Your task to perform on an android device: toggle airplane mode Image 0: 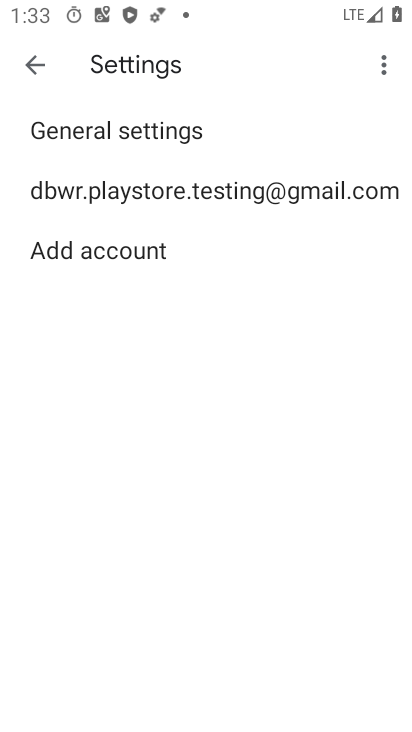
Step 0: press home button
Your task to perform on an android device: toggle airplane mode Image 1: 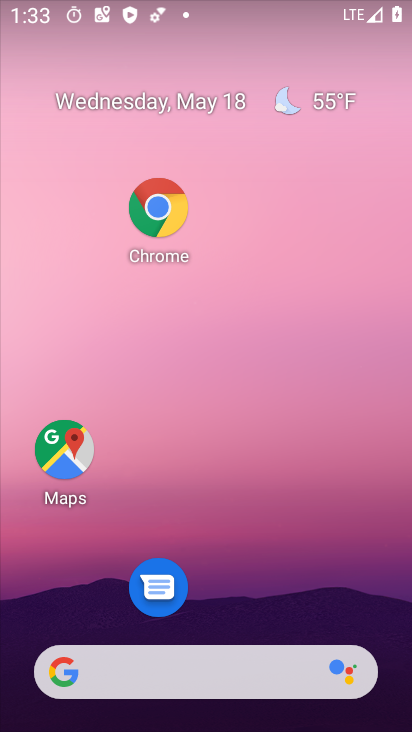
Step 1: drag from (268, 614) to (214, 174)
Your task to perform on an android device: toggle airplane mode Image 2: 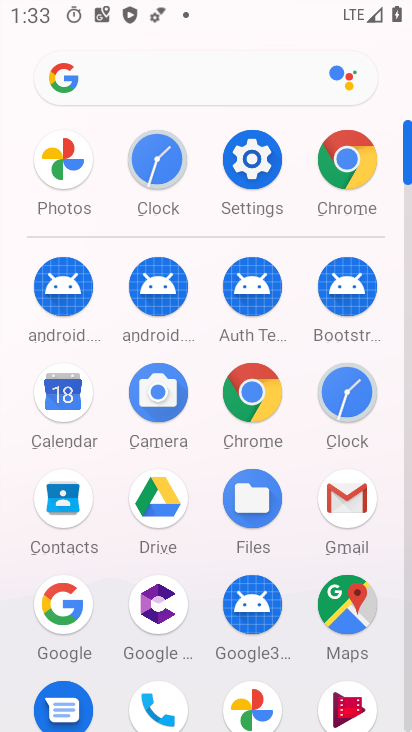
Step 2: press home button
Your task to perform on an android device: toggle airplane mode Image 3: 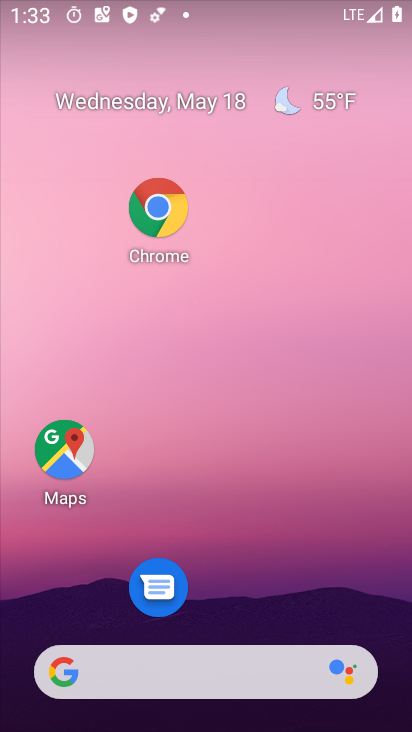
Step 3: drag from (243, 592) to (268, 100)
Your task to perform on an android device: toggle airplane mode Image 4: 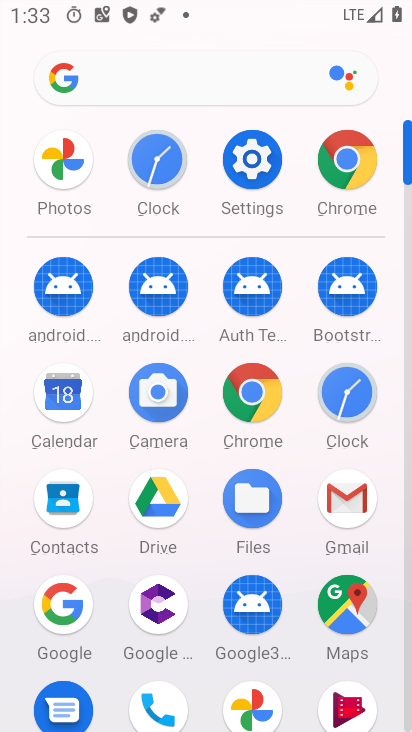
Step 4: click (248, 172)
Your task to perform on an android device: toggle airplane mode Image 5: 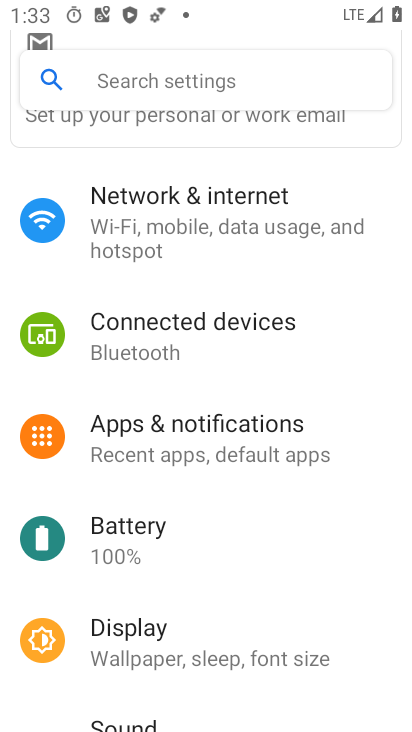
Step 5: click (249, 217)
Your task to perform on an android device: toggle airplane mode Image 6: 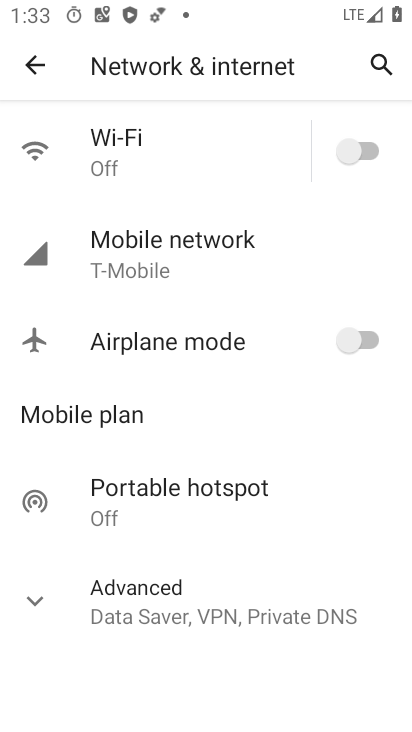
Step 6: click (373, 344)
Your task to perform on an android device: toggle airplane mode Image 7: 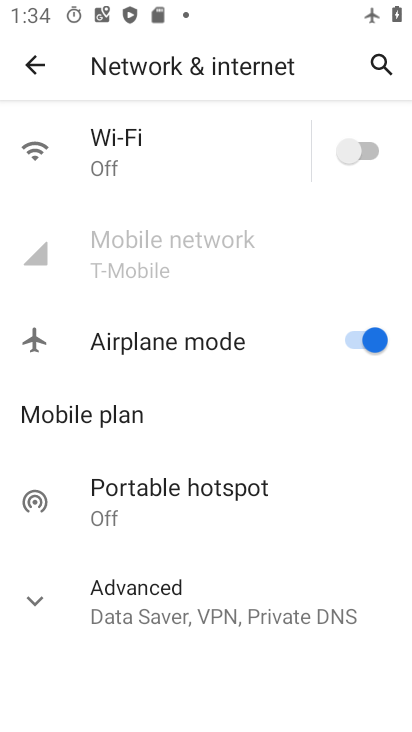
Step 7: task complete